Your task to perform on an android device: move a message to another label in the gmail app Image 0: 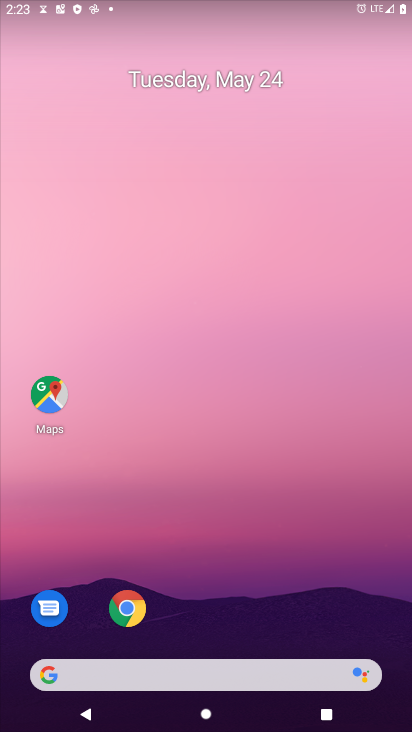
Step 0: drag from (280, 692) to (268, 121)
Your task to perform on an android device: move a message to another label in the gmail app Image 1: 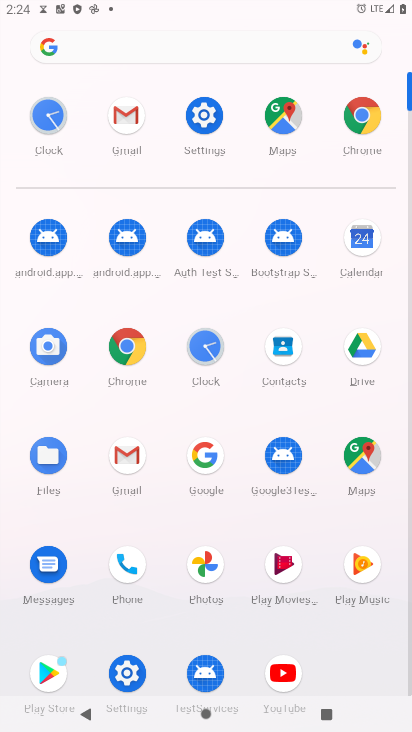
Step 1: click (131, 123)
Your task to perform on an android device: move a message to another label in the gmail app Image 2: 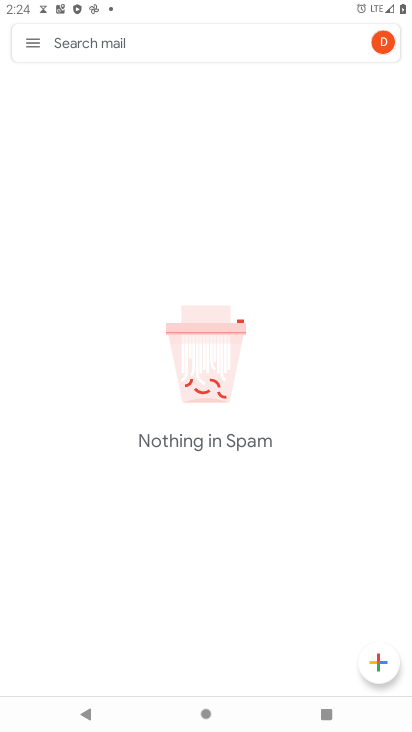
Step 2: click (34, 51)
Your task to perform on an android device: move a message to another label in the gmail app Image 3: 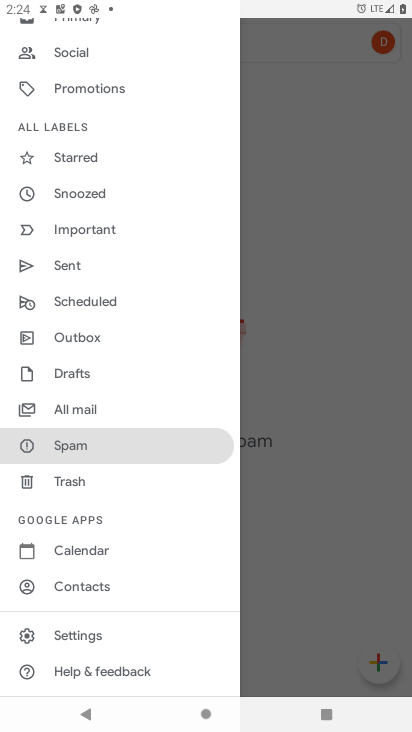
Step 3: click (89, 640)
Your task to perform on an android device: move a message to another label in the gmail app Image 4: 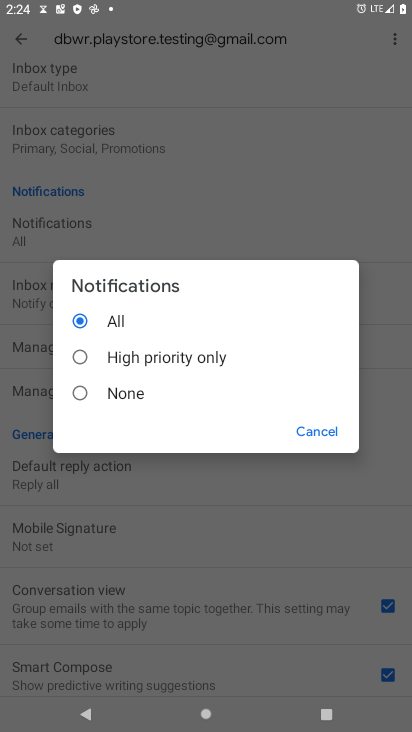
Step 4: click (307, 442)
Your task to perform on an android device: move a message to another label in the gmail app Image 5: 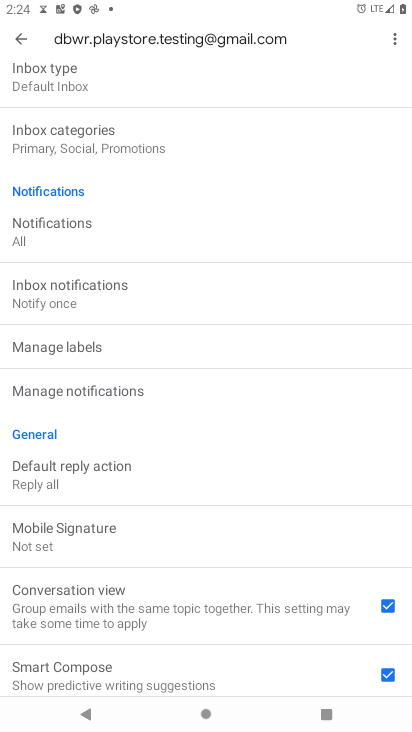
Step 5: click (125, 355)
Your task to perform on an android device: move a message to another label in the gmail app Image 6: 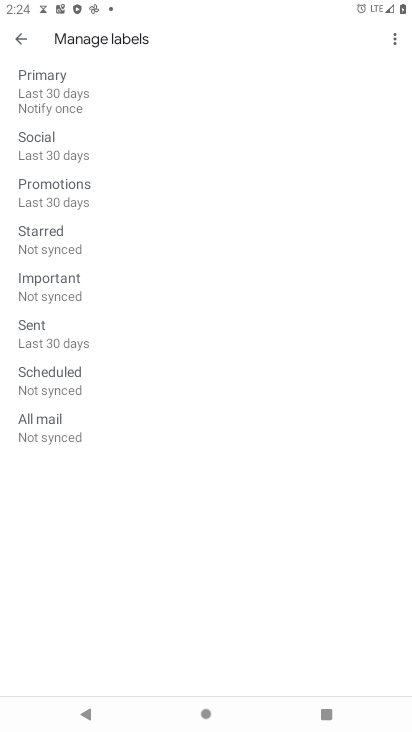
Step 6: click (163, 364)
Your task to perform on an android device: move a message to another label in the gmail app Image 7: 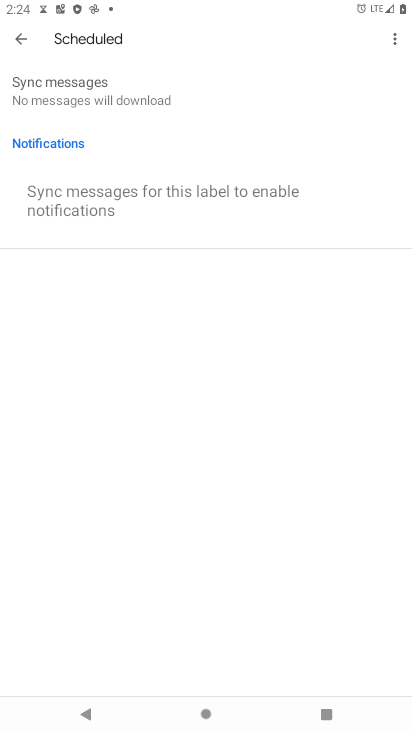
Step 7: task complete